Your task to perform on an android device: clear all cookies in the chrome app Image 0: 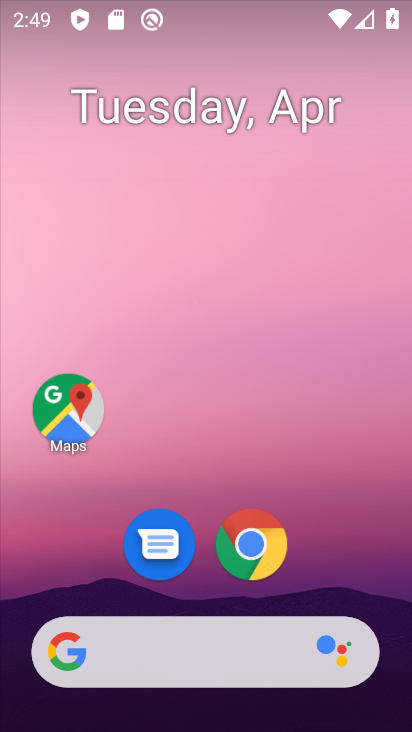
Step 0: drag from (317, 555) to (371, 105)
Your task to perform on an android device: clear all cookies in the chrome app Image 1: 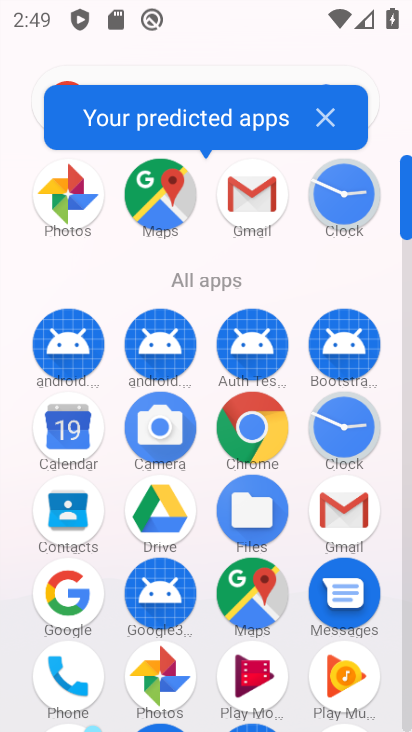
Step 1: click (256, 439)
Your task to perform on an android device: clear all cookies in the chrome app Image 2: 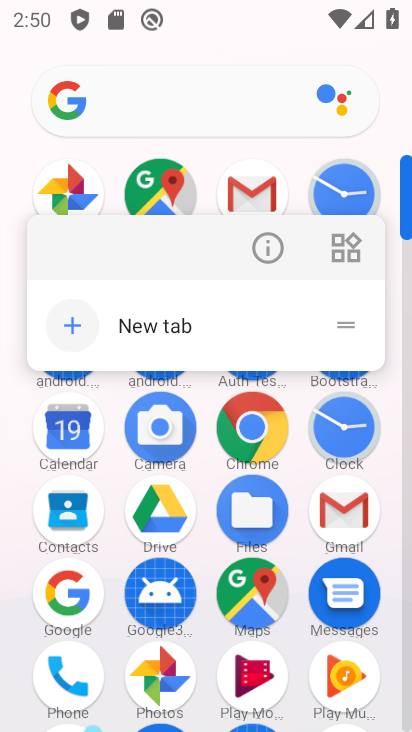
Step 2: click (257, 424)
Your task to perform on an android device: clear all cookies in the chrome app Image 3: 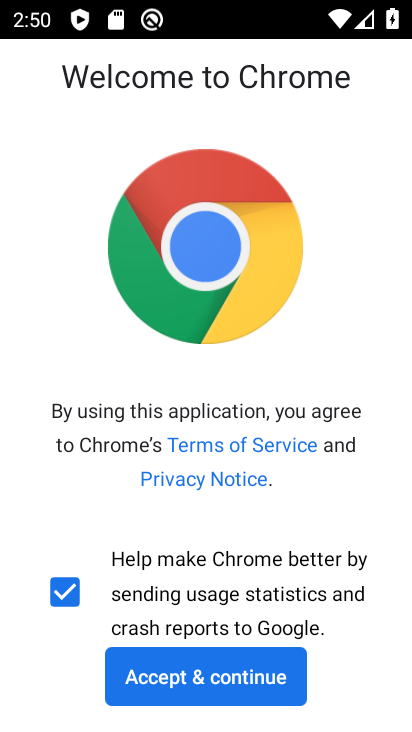
Step 3: click (228, 674)
Your task to perform on an android device: clear all cookies in the chrome app Image 4: 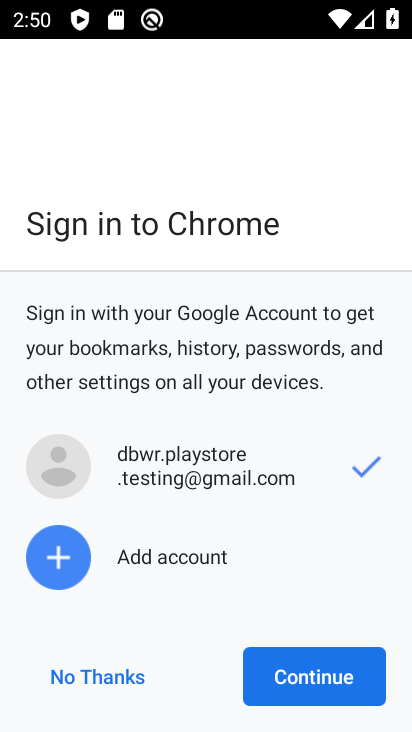
Step 4: click (326, 668)
Your task to perform on an android device: clear all cookies in the chrome app Image 5: 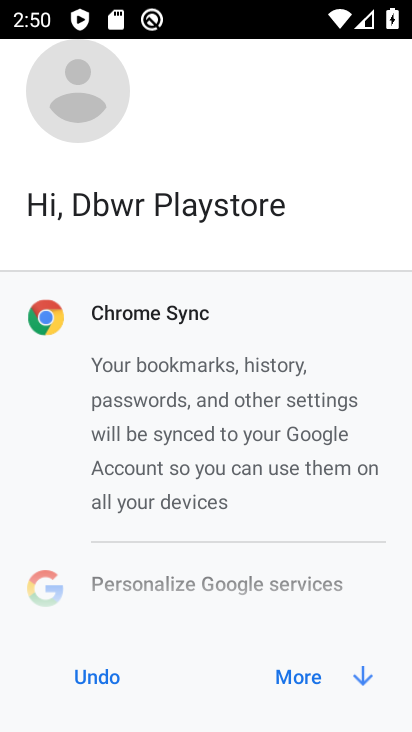
Step 5: click (326, 668)
Your task to perform on an android device: clear all cookies in the chrome app Image 6: 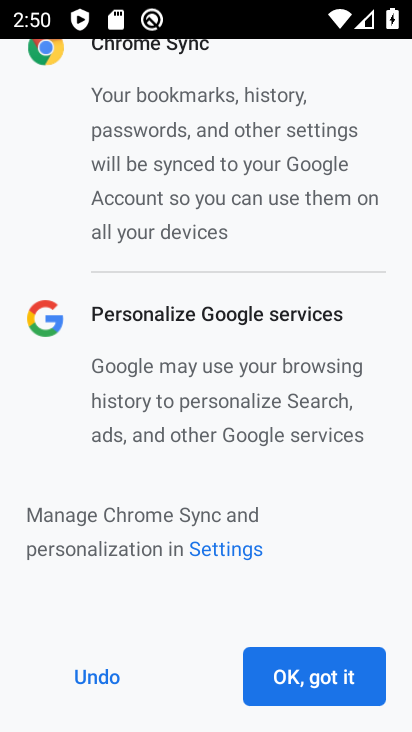
Step 6: click (326, 668)
Your task to perform on an android device: clear all cookies in the chrome app Image 7: 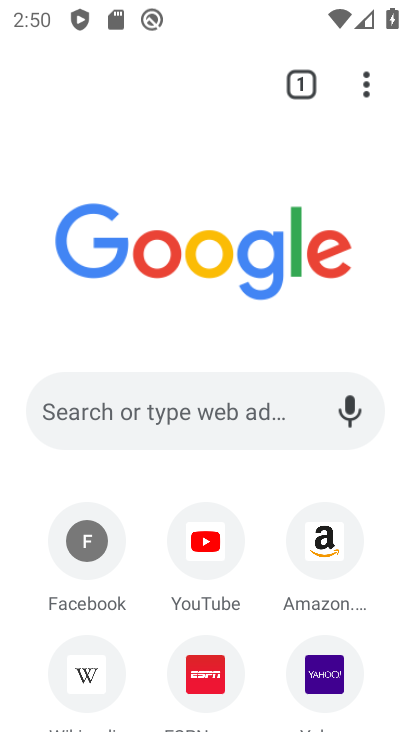
Step 7: drag from (366, 88) to (127, 600)
Your task to perform on an android device: clear all cookies in the chrome app Image 8: 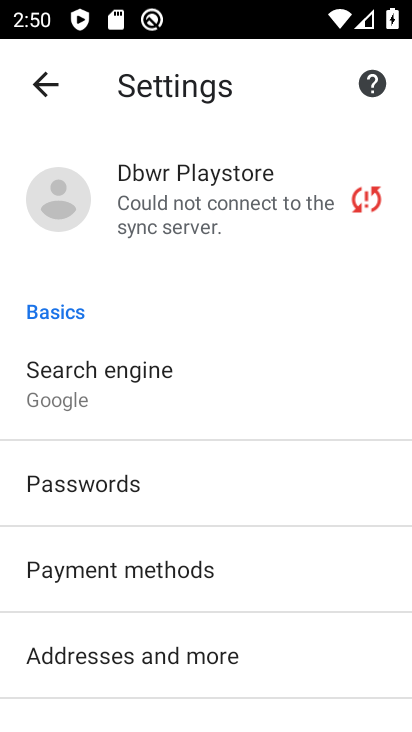
Step 8: drag from (359, 682) to (356, 348)
Your task to perform on an android device: clear all cookies in the chrome app Image 9: 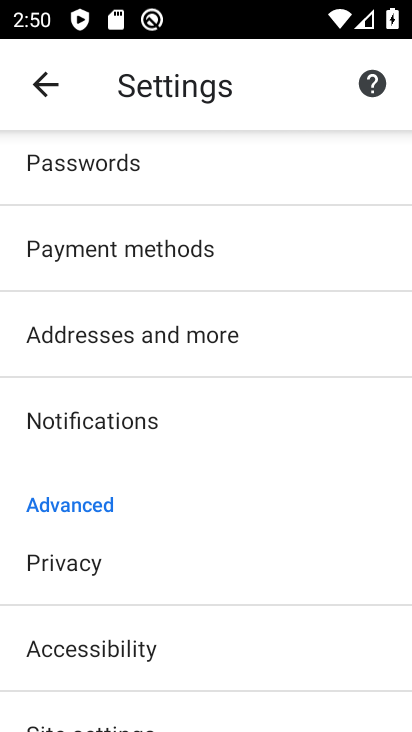
Step 9: click (47, 564)
Your task to perform on an android device: clear all cookies in the chrome app Image 10: 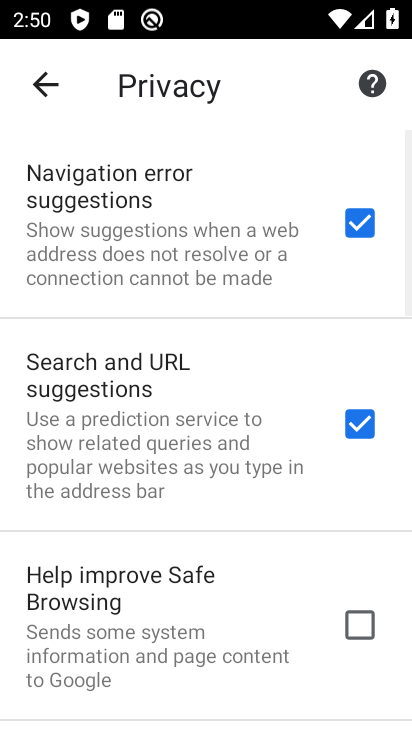
Step 10: drag from (251, 705) to (302, 140)
Your task to perform on an android device: clear all cookies in the chrome app Image 11: 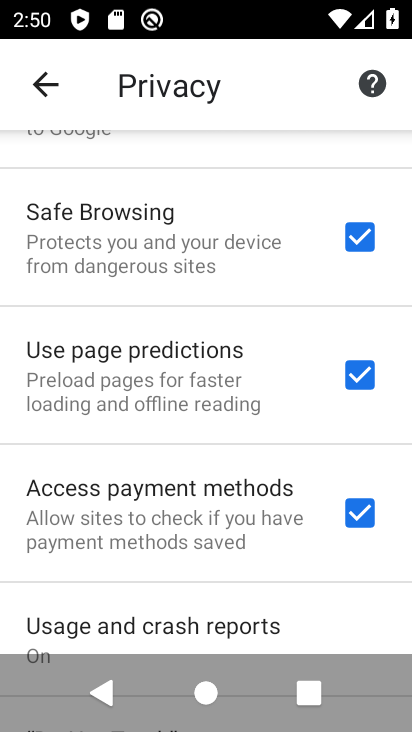
Step 11: drag from (282, 610) to (327, 159)
Your task to perform on an android device: clear all cookies in the chrome app Image 12: 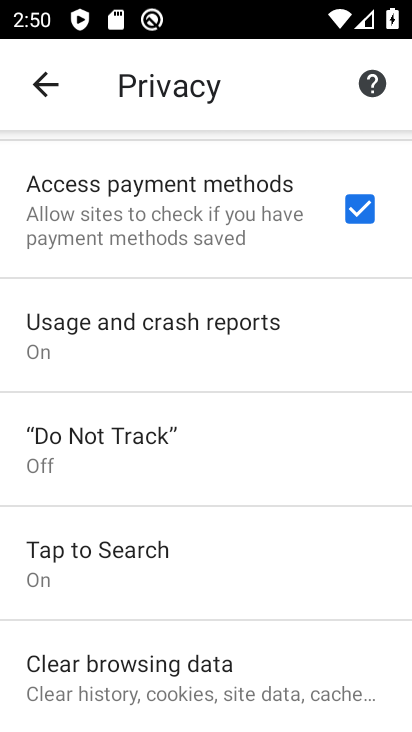
Step 12: drag from (298, 657) to (332, 215)
Your task to perform on an android device: clear all cookies in the chrome app Image 13: 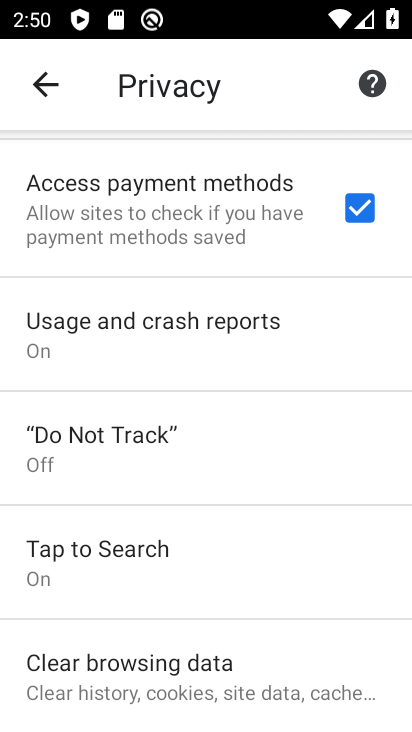
Step 13: click (195, 676)
Your task to perform on an android device: clear all cookies in the chrome app Image 14: 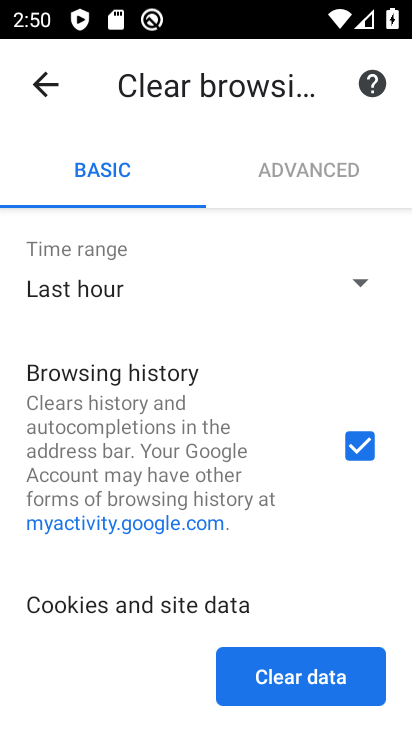
Step 14: drag from (312, 541) to (326, 257)
Your task to perform on an android device: clear all cookies in the chrome app Image 15: 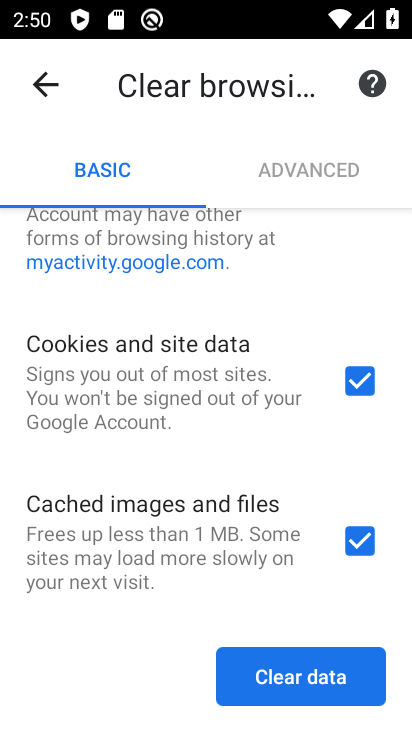
Step 15: click (291, 673)
Your task to perform on an android device: clear all cookies in the chrome app Image 16: 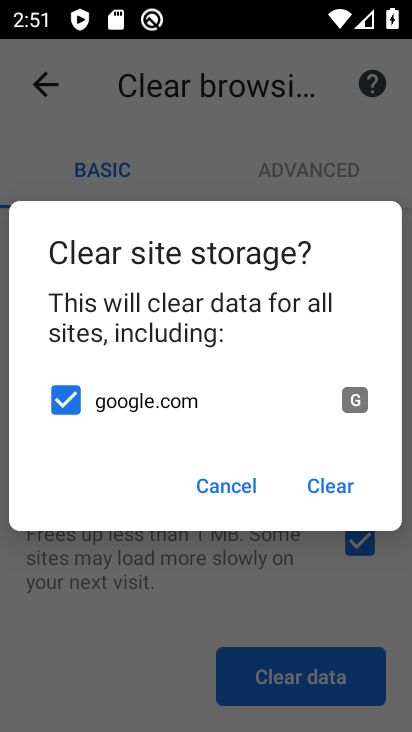
Step 16: click (326, 481)
Your task to perform on an android device: clear all cookies in the chrome app Image 17: 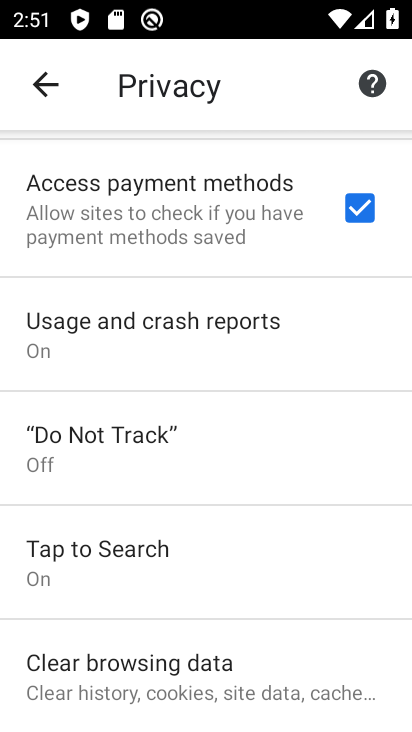
Step 17: task complete